Your task to perform on an android device: toggle location history Image 0: 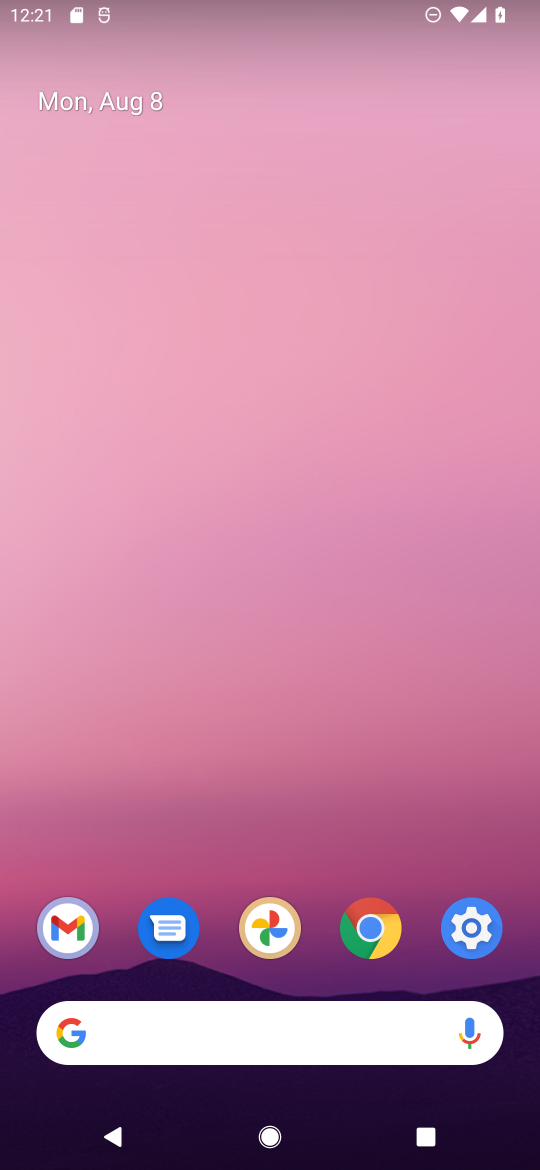
Step 0: press home button
Your task to perform on an android device: toggle location history Image 1: 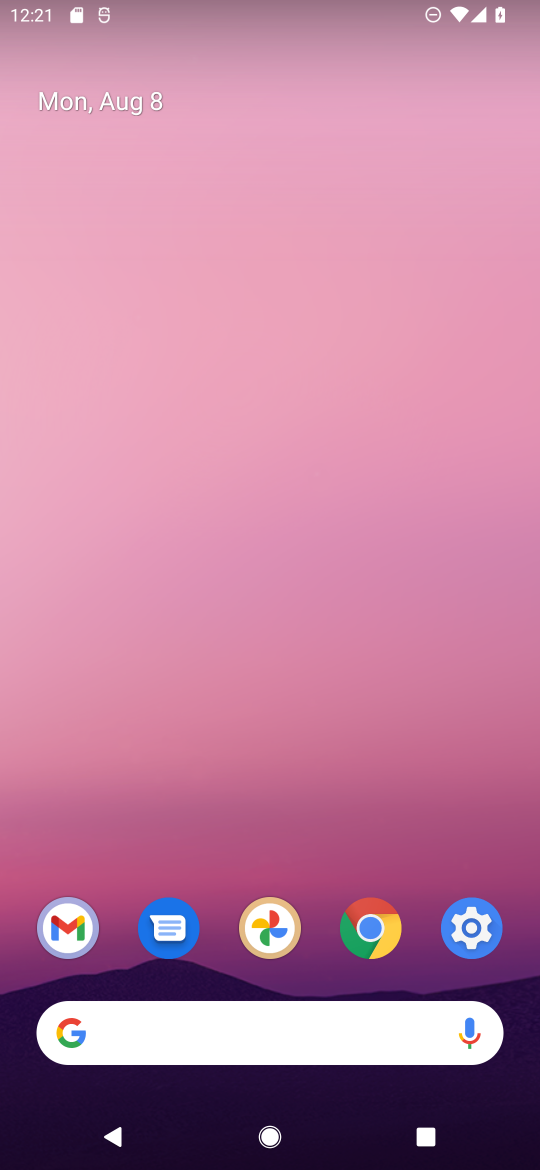
Step 1: drag from (294, 768) to (129, 299)
Your task to perform on an android device: toggle location history Image 2: 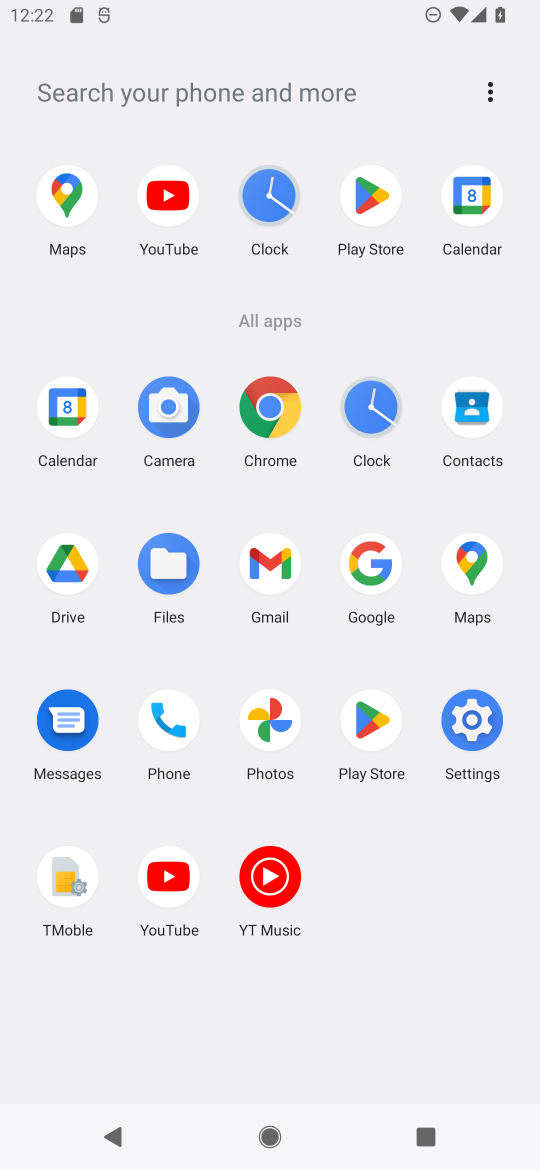
Step 2: click (494, 707)
Your task to perform on an android device: toggle location history Image 3: 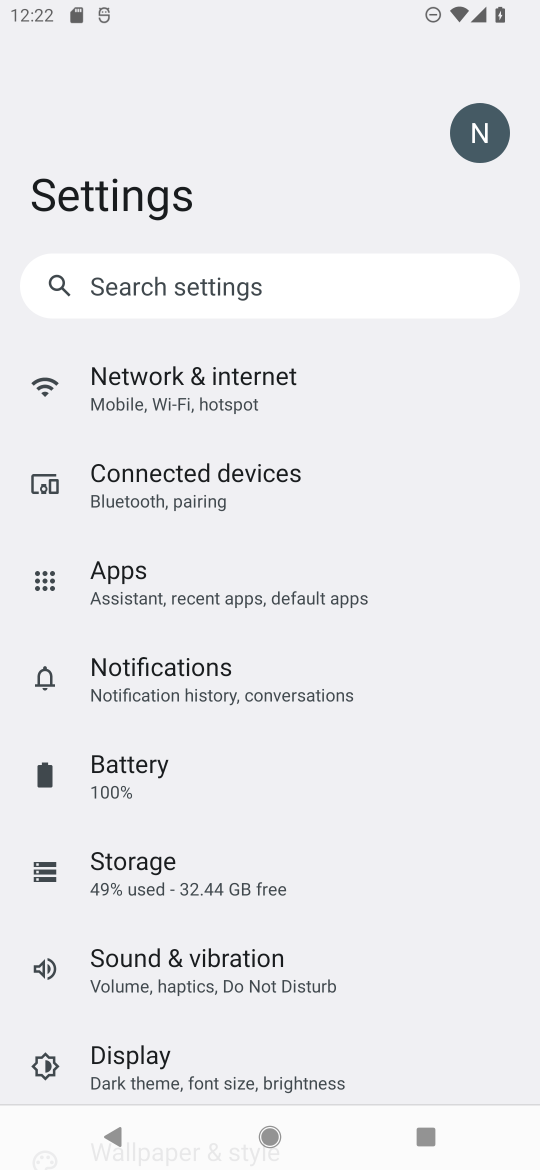
Step 3: click (225, 287)
Your task to perform on an android device: toggle location history Image 4: 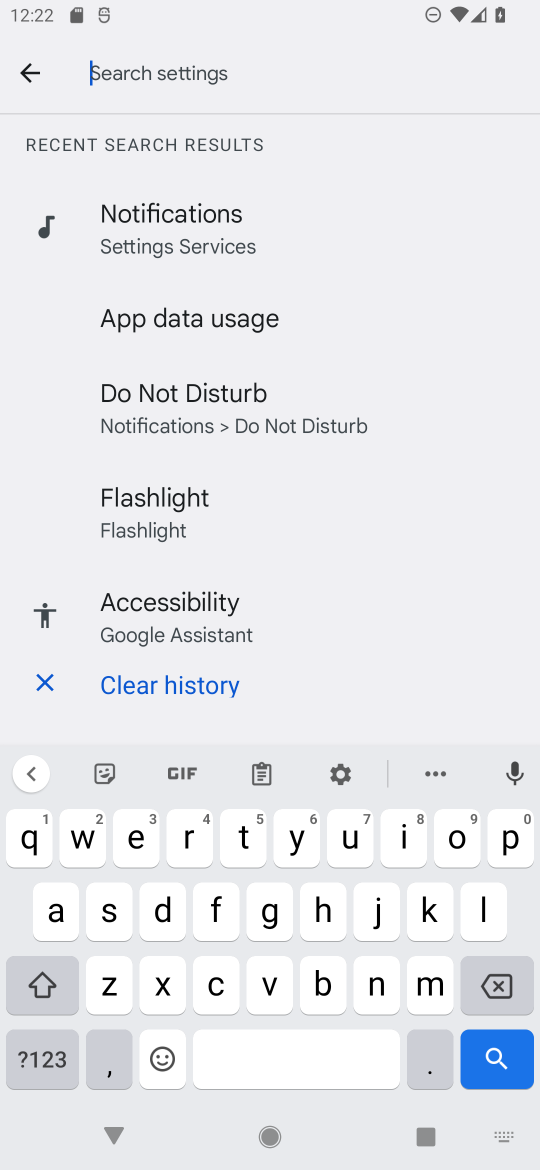
Step 4: click (483, 931)
Your task to perform on an android device: toggle location history Image 5: 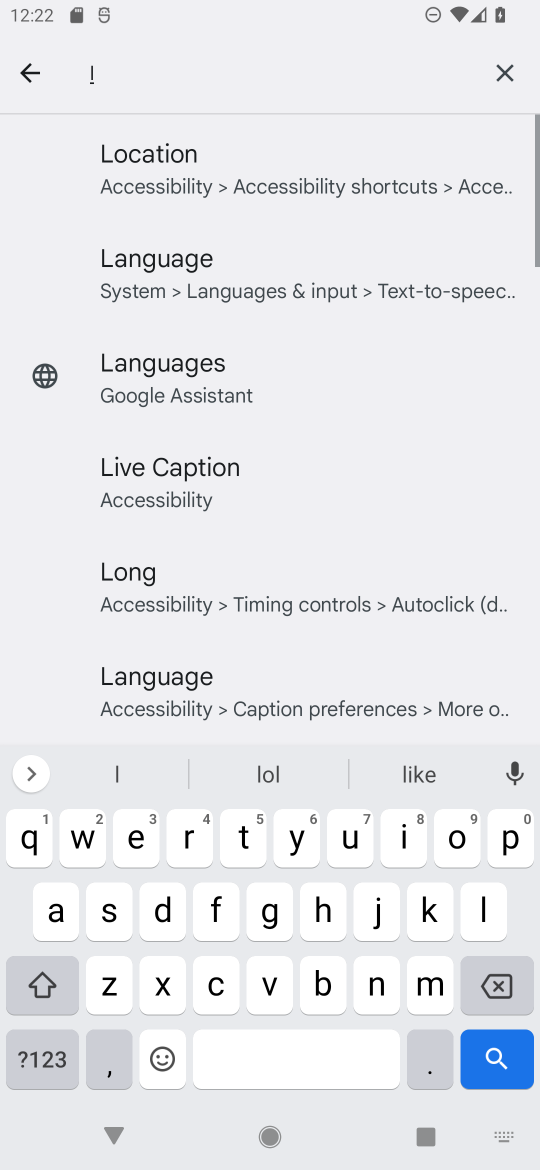
Step 5: click (456, 857)
Your task to perform on an android device: toggle location history Image 6: 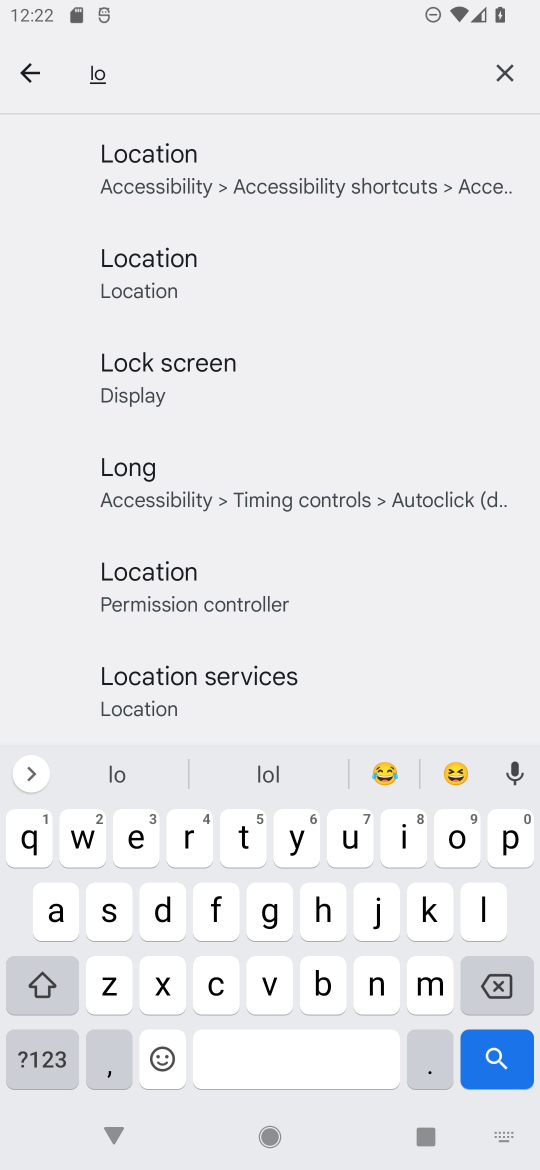
Step 6: click (155, 257)
Your task to perform on an android device: toggle location history Image 7: 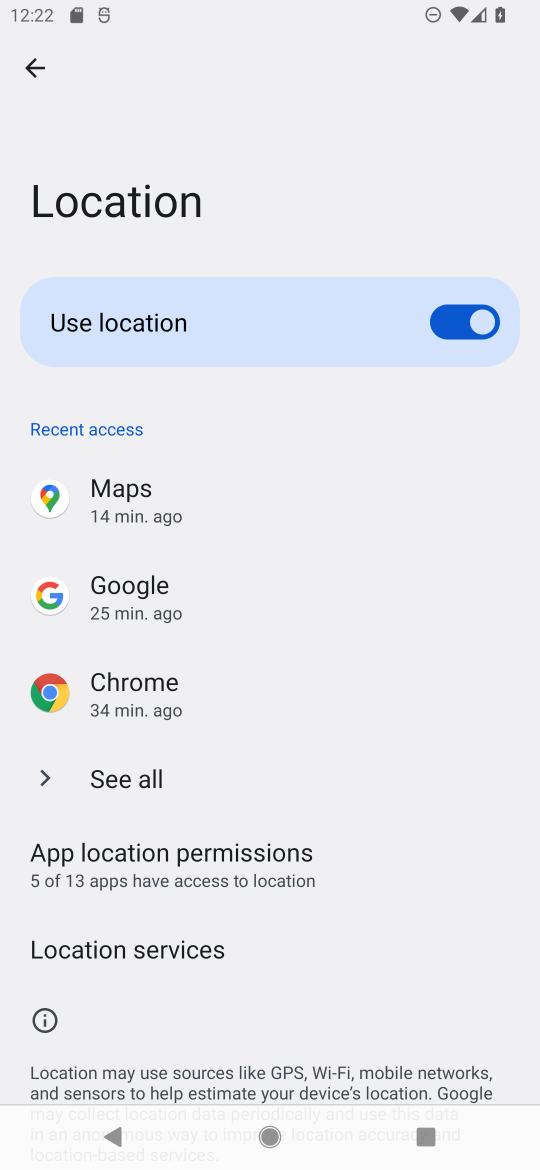
Step 7: drag from (263, 889) to (300, 601)
Your task to perform on an android device: toggle location history Image 8: 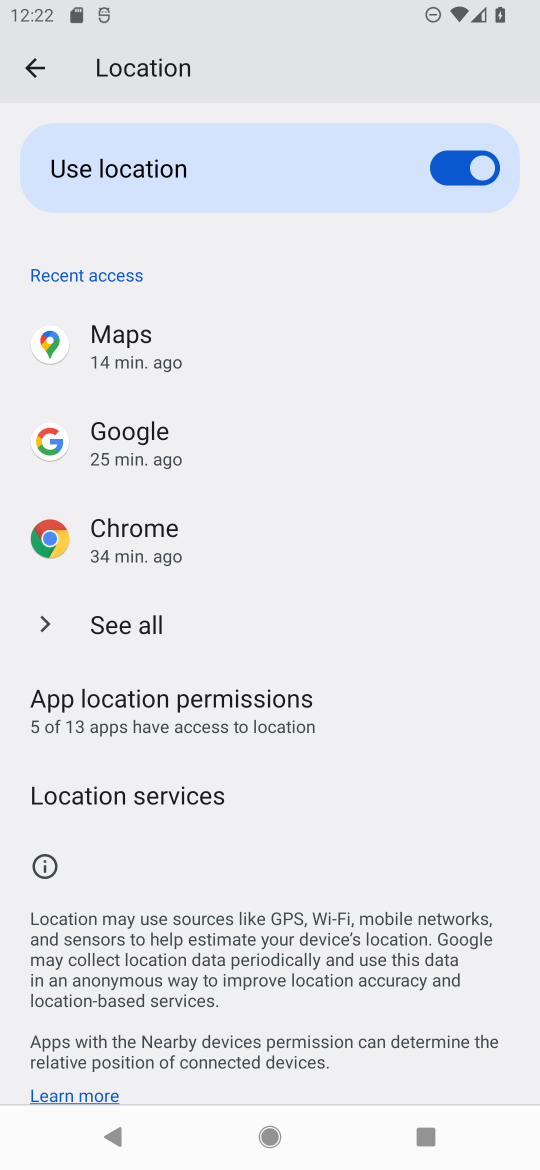
Step 8: click (63, 634)
Your task to perform on an android device: toggle location history Image 9: 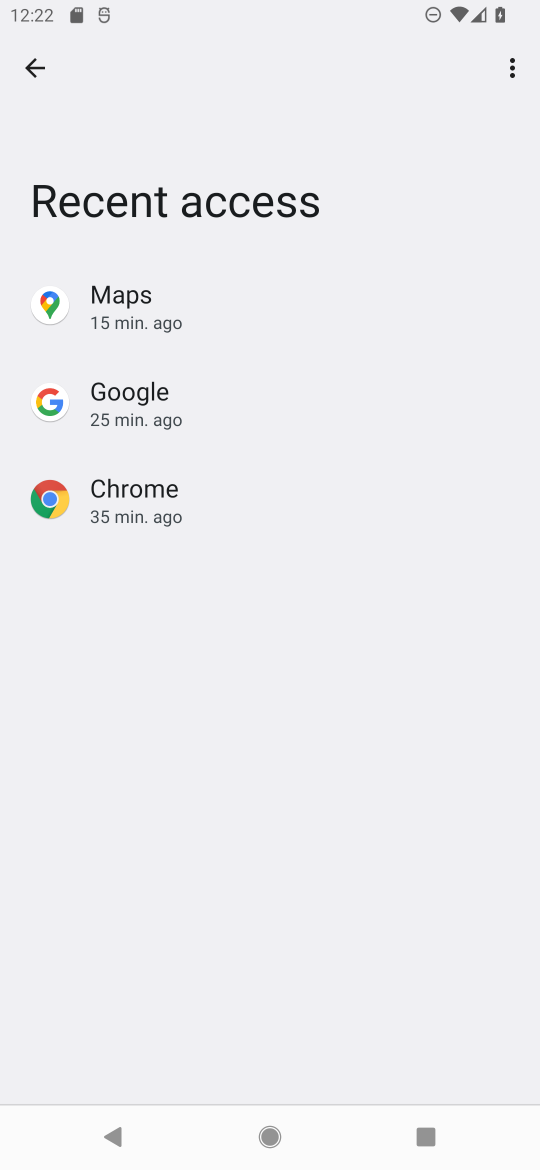
Step 9: click (26, 73)
Your task to perform on an android device: toggle location history Image 10: 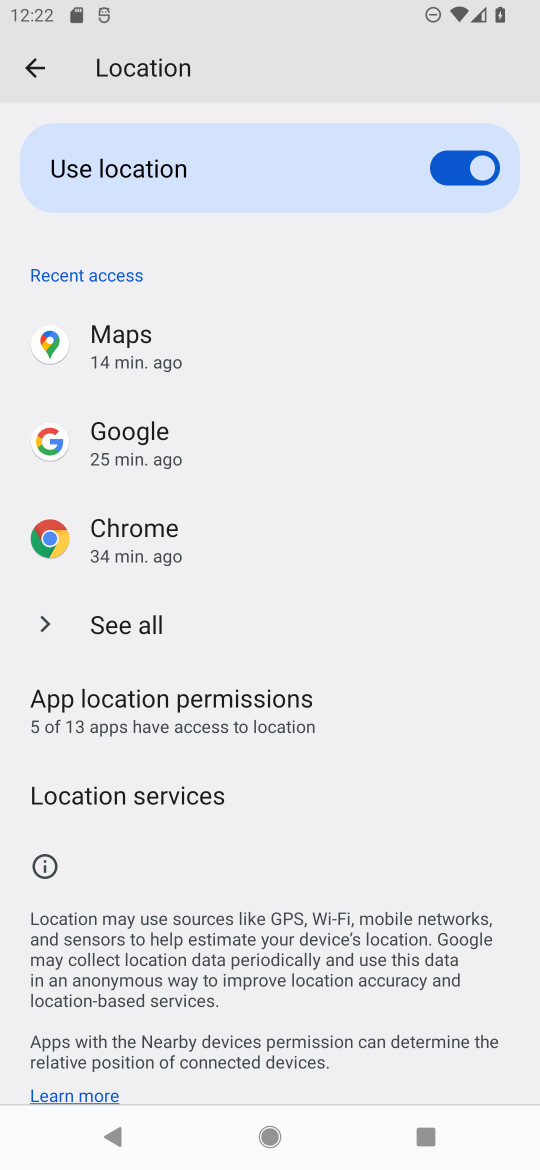
Step 10: click (126, 799)
Your task to perform on an android device: toggle location history Image 11: 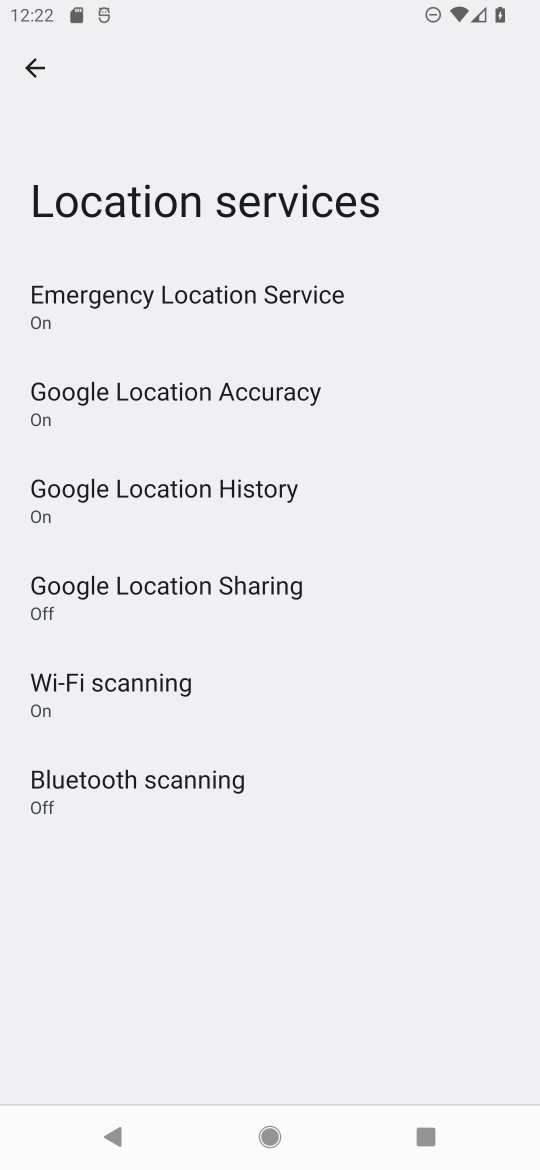
Step 11: click (185, 491)
Your task to perform on an android device: toggle location history Image 12: 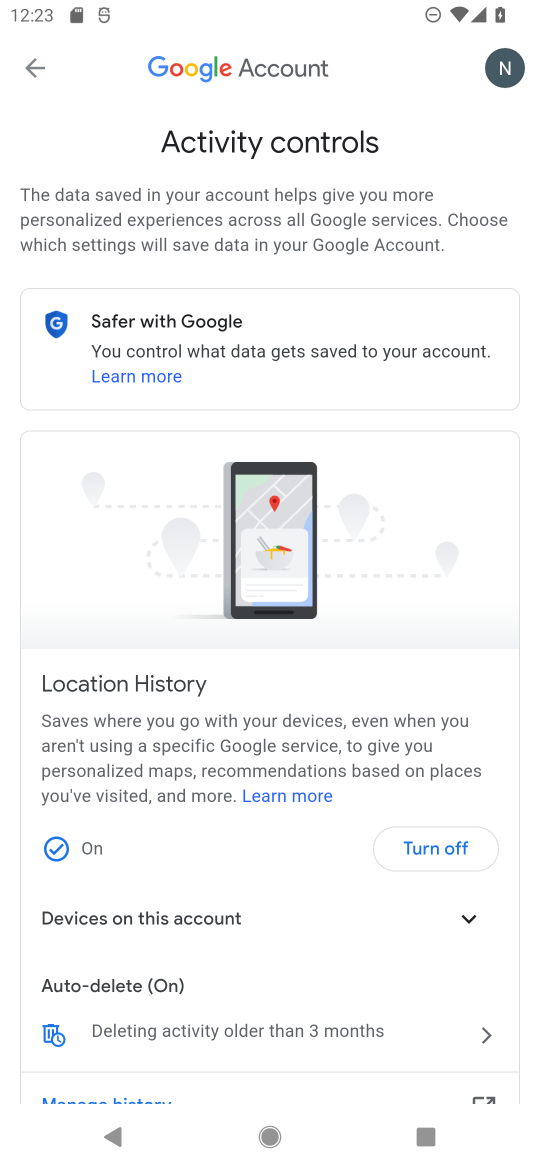
Step 12: task complete